Your task to perform on an android device: Clear the shopping cart on bestbuy.com. Image 0: 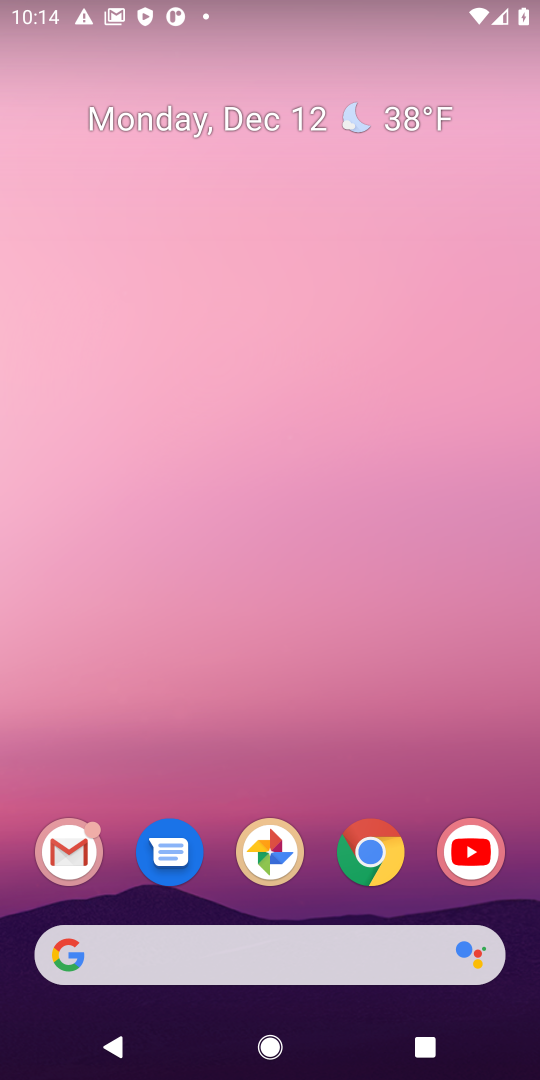
Step 0: drag from (317, 937) to (317, 676)
Your task to perform on an android device: Clear the shopping cart on bestbuy.com. Image 1: 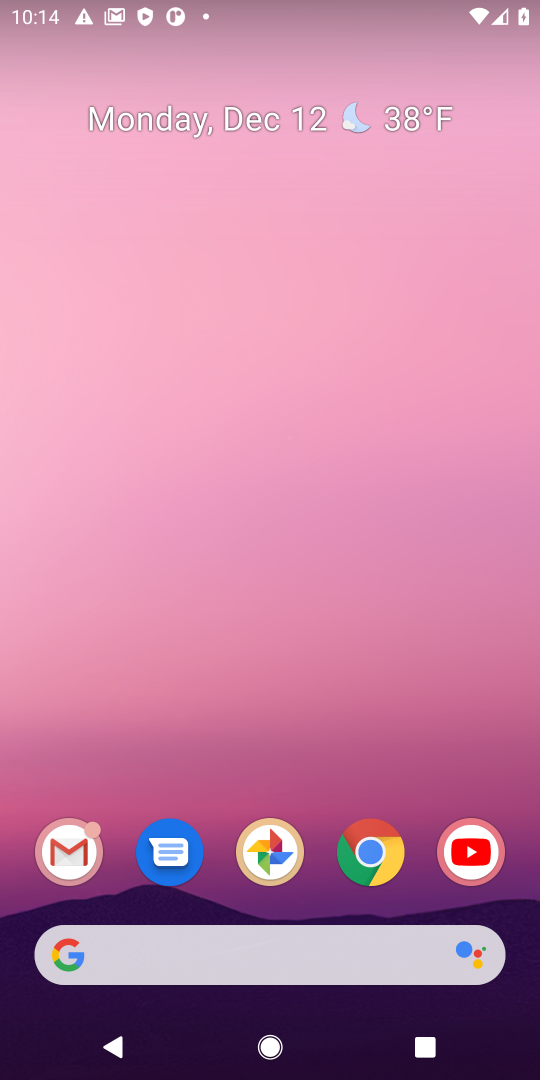
Step 1: drag from (266, 922) to (384, 133)
Your task to perform on an android device: Clear the shopping cart on bestbuy.com. Image 2: 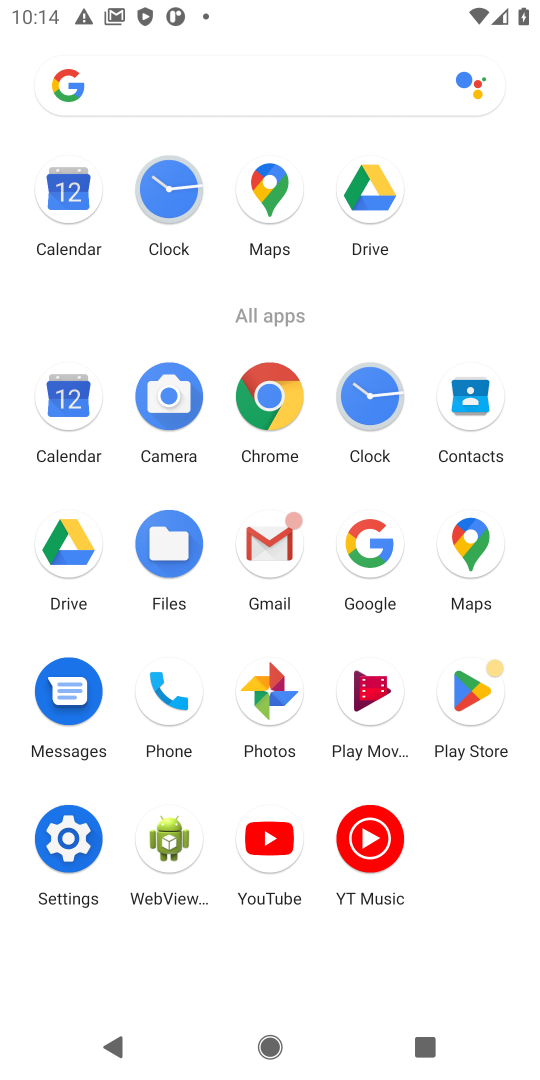
Step 2: click (367, 565)
Your task to perform on an android device: Clear the shopping cart on bestbuy.com. Image 3: 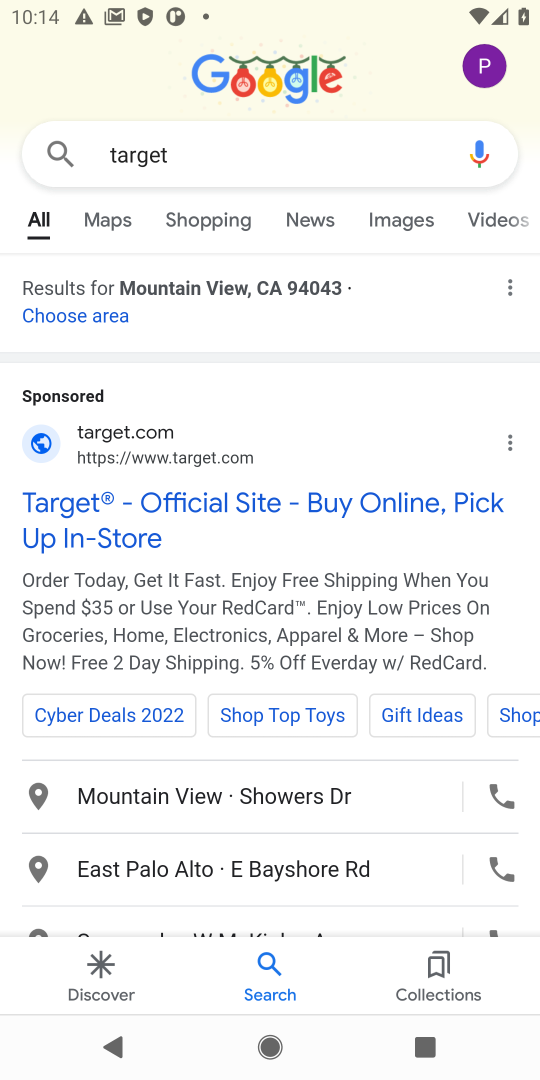
Step 3: click (227, 156)
Your task to perform on an android device: Clear the shopping cart on bestbuy.com. Image 4: 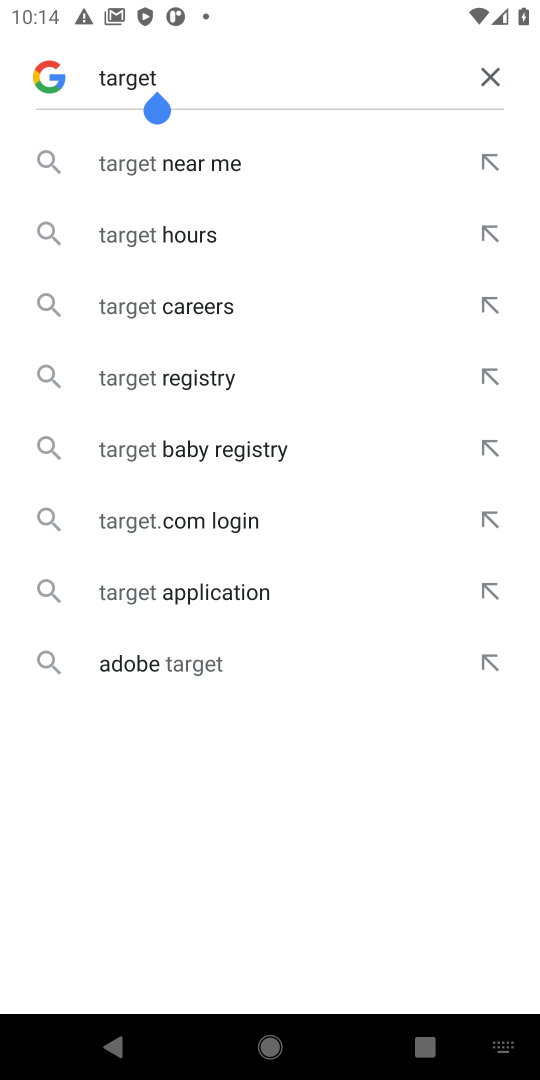
Step 4: click (488, 76)
Your task to perform on an android device: Clear the shopping cart on bestbuy.com. Image 5: 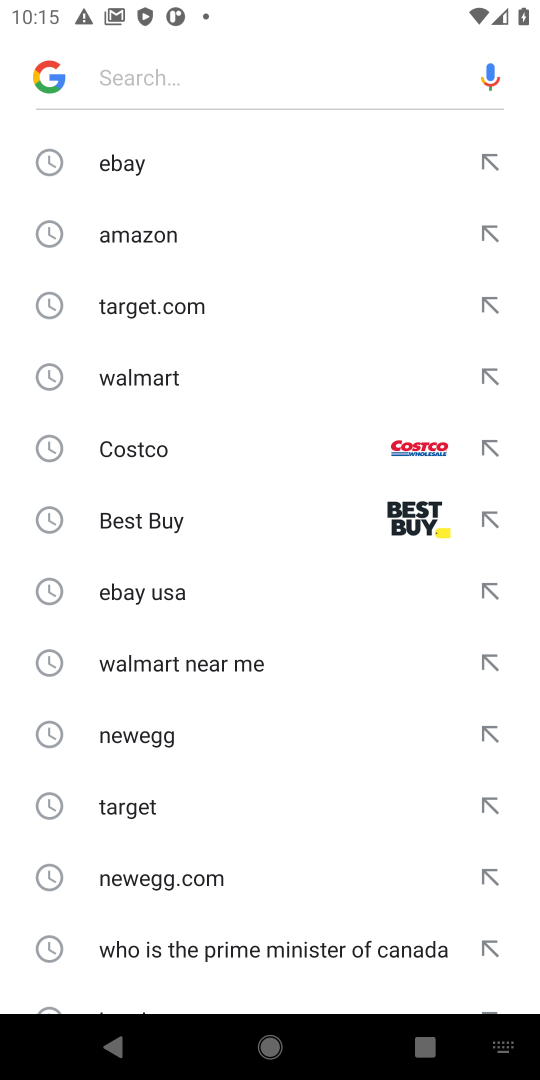
Step 5: click (170, 516)
Your task to perform on an android device: Clear the shopping cart on bestbuy.com. Image 6: 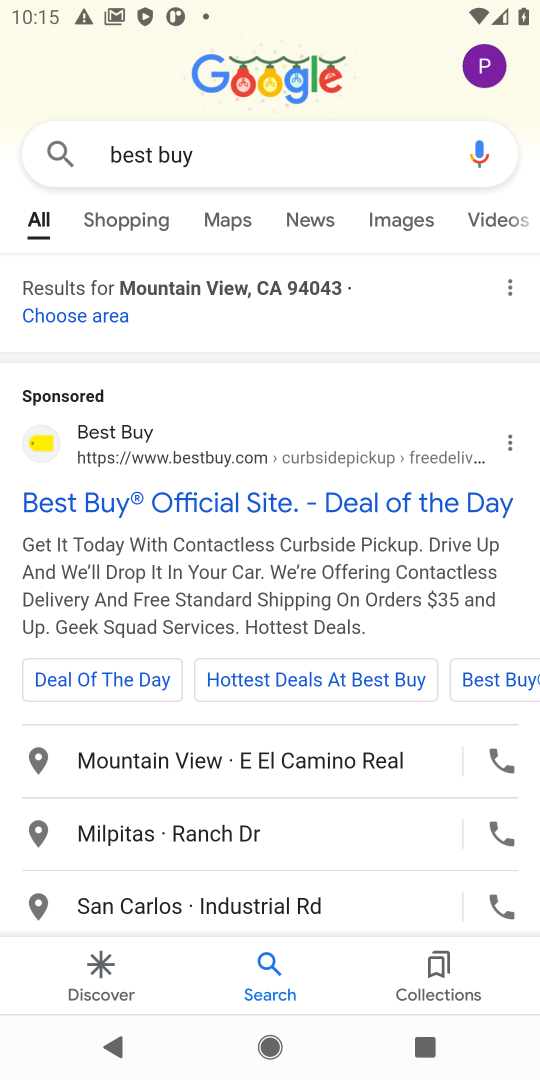
Step 6: click (148, 507)
Your task to perform on an android device: Clear the shopping cart on bestbuy.com. Image 7: 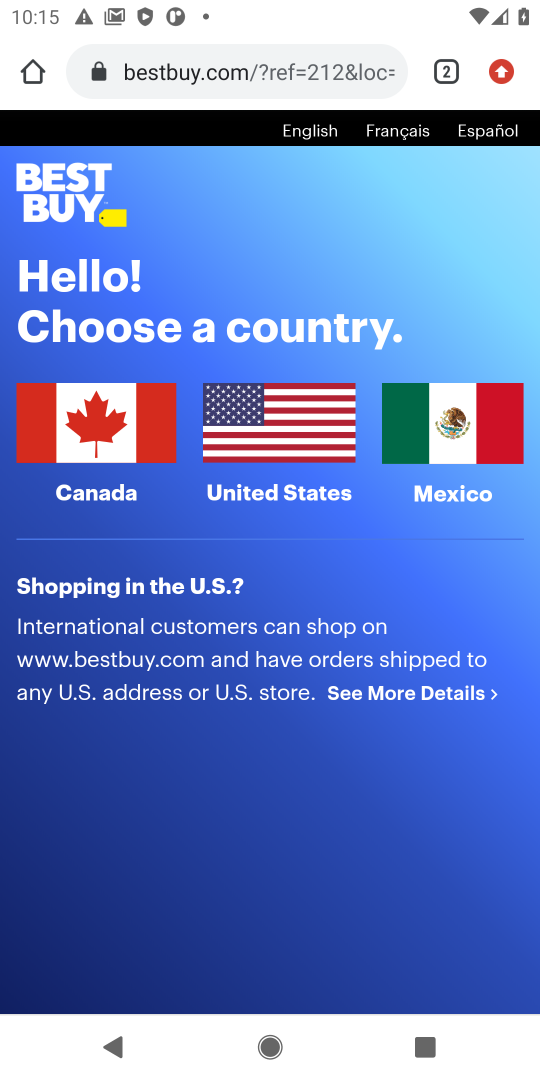
Step 7: click (241, 423)
Your task to perform on an android device: Clear the shopping cart on bestbuy.com. Image 8: 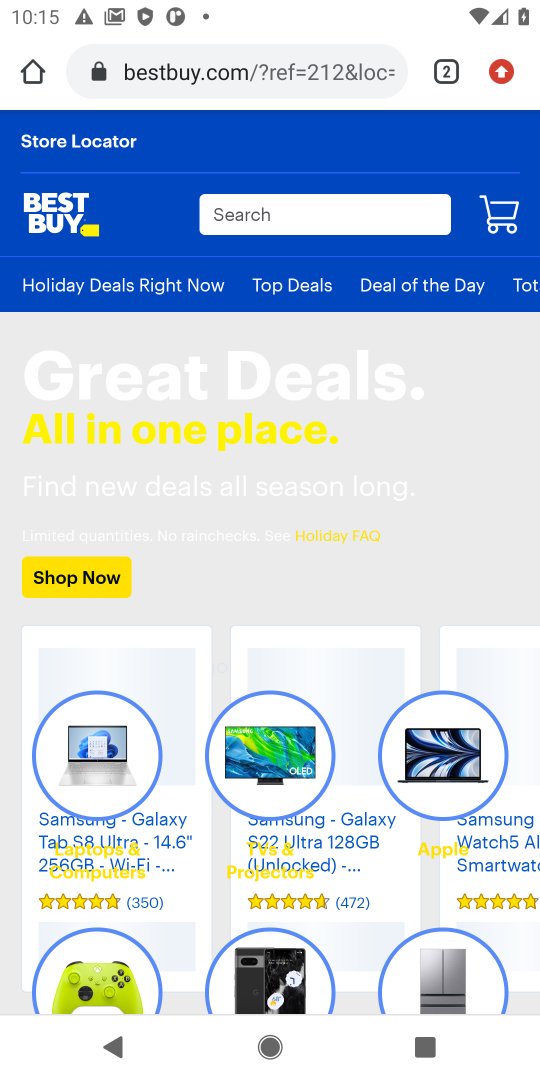
Step 8: click (294, 215)
Your task to perform on an android device: Clear the shopping cart on bestbuy.com. Image 9: 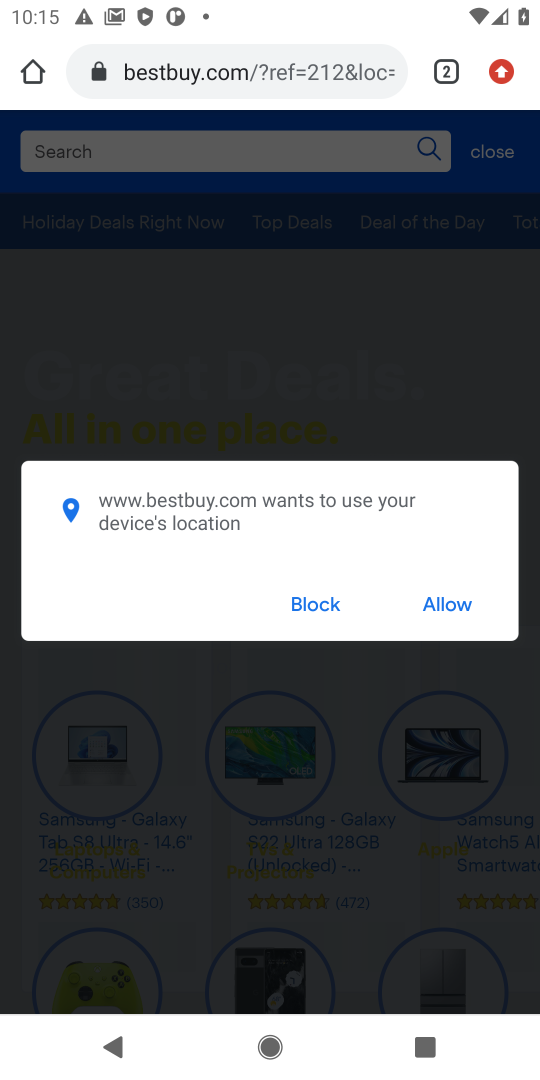
Step 9: click (468, 600)
Your task to perform on an android device: Clear the shopping cart on bestbuy.com. Image 10: 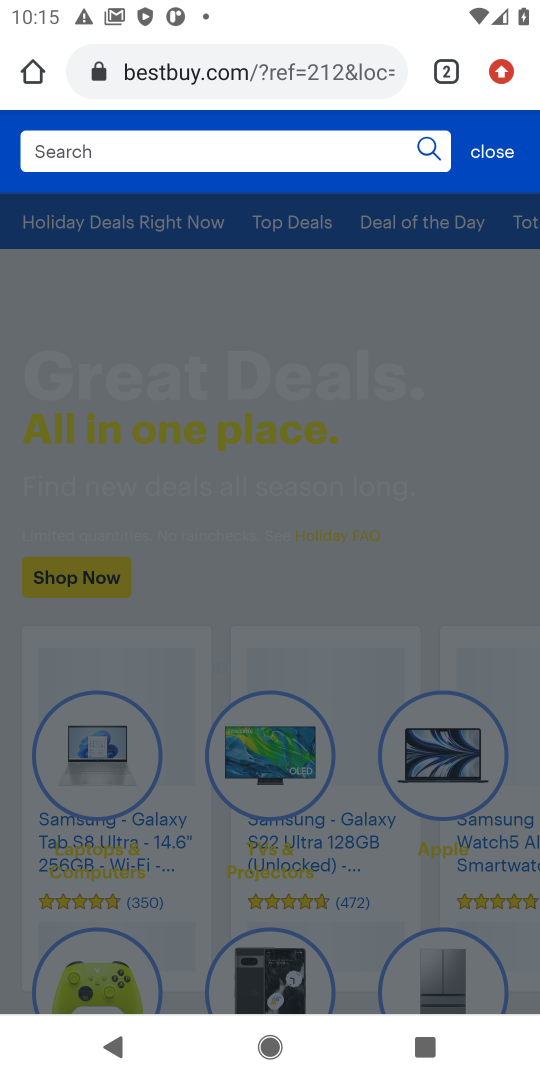
Step 10: click (141, 150)
Your task to perform on an android device: Clear the shopping cart on bestbuy.com. Image 11: 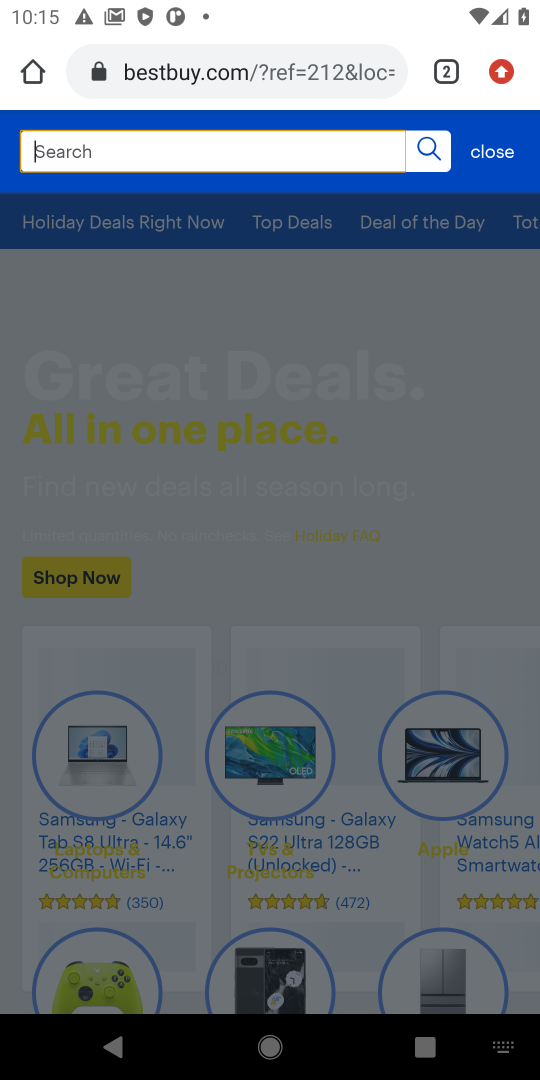
Step 11: click (508, 153)
Your task to perform on an android device: Clear the shopping cart on bestbuy.com. Image 12: 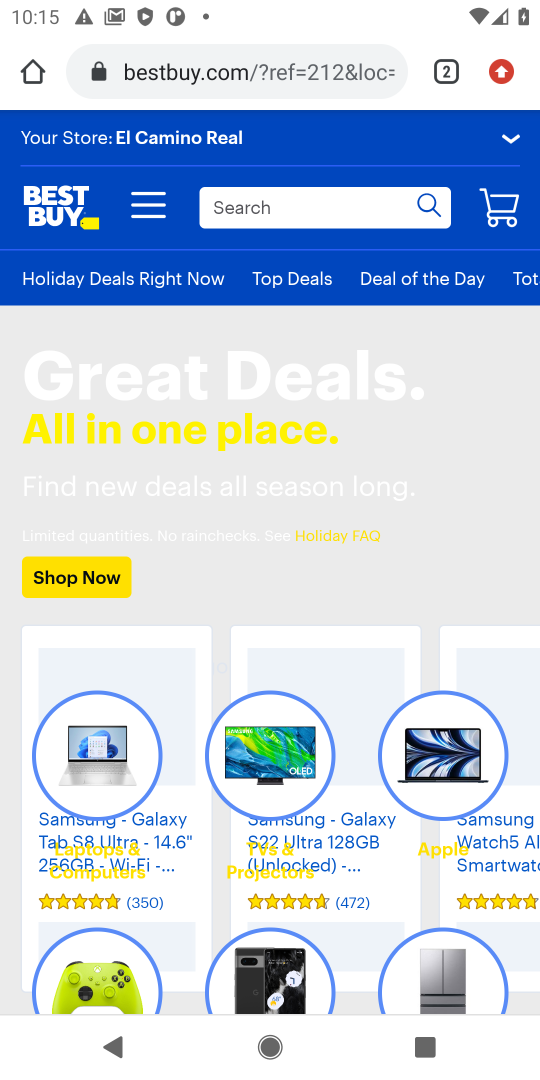
Step 12: click (507, 220)
Your task to perform on an android device: Clear the shopping cart on bestbuy.com. Image 13: 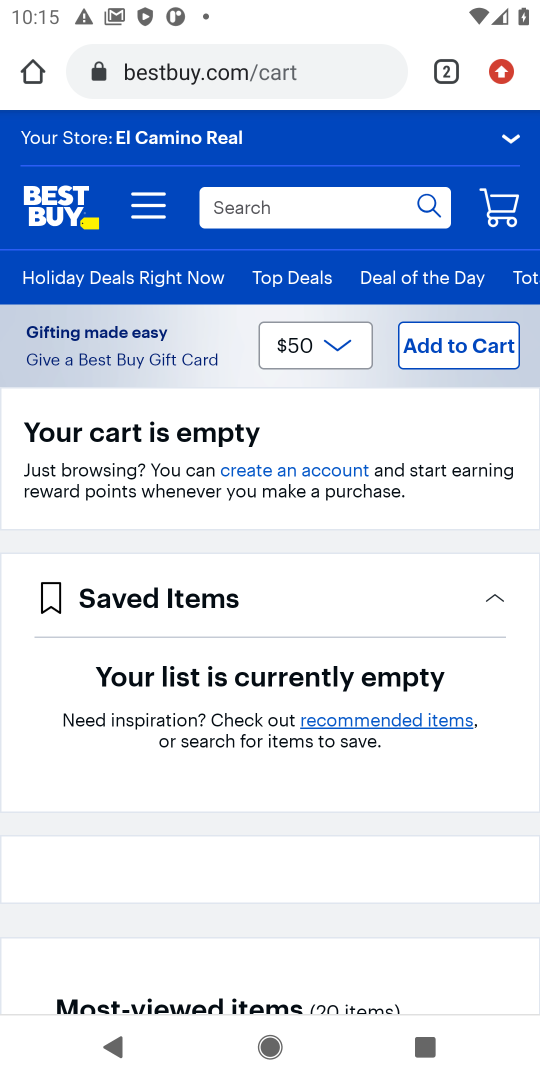
Step 13: task complete